Your task to perform on an android device: Go to display settings Image 0: 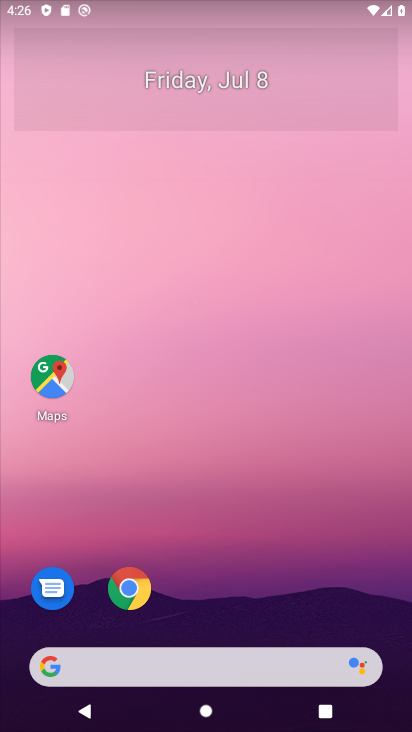
Step 0: drag from (219, 590) to (249, 28)
Your task to perform on an android device: Go to display settings Image 1: 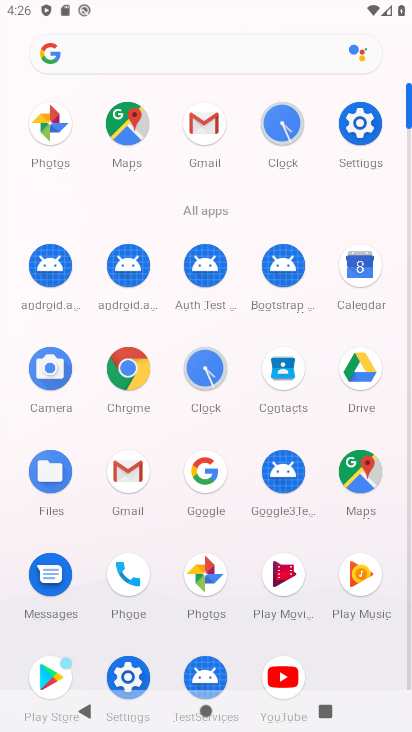
Step 1: click (126, 669)
Your task to perform on an android device: Go to display settings Image 2: 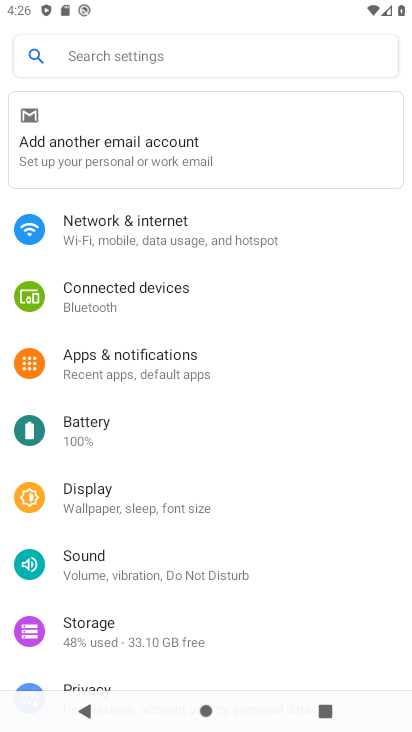
Step 2: click (170, 513)
Your task to perform on an android device: Go to display settings Image 3: 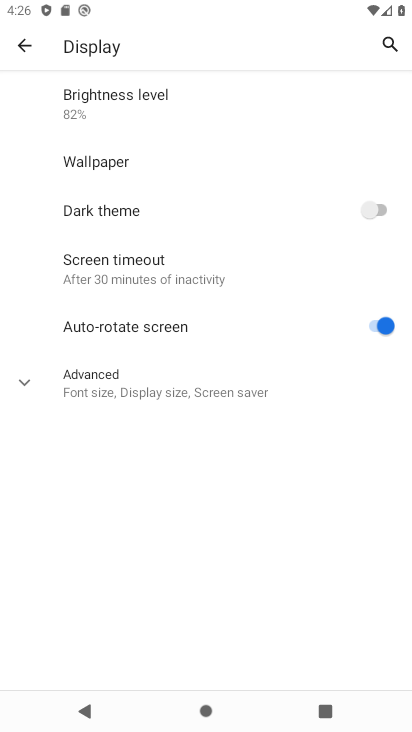
Step 3: task complete